Your task to perform on an android device: Open Google Image 0: 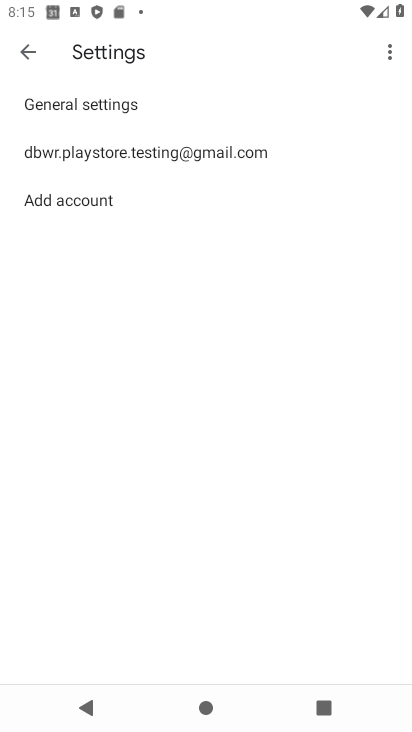
Step 0: press home button
Your task to perform on an android device: Open Google Image 1: 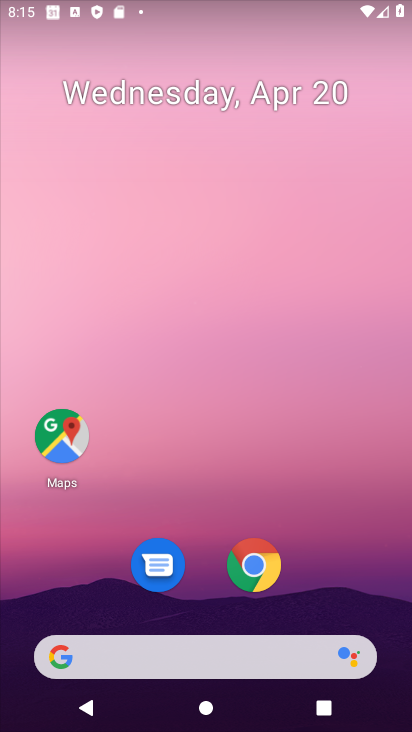
Step 1: drag from (315, 494) to (240, 18)
Your task to perform on an android device: Open Google Image 2: 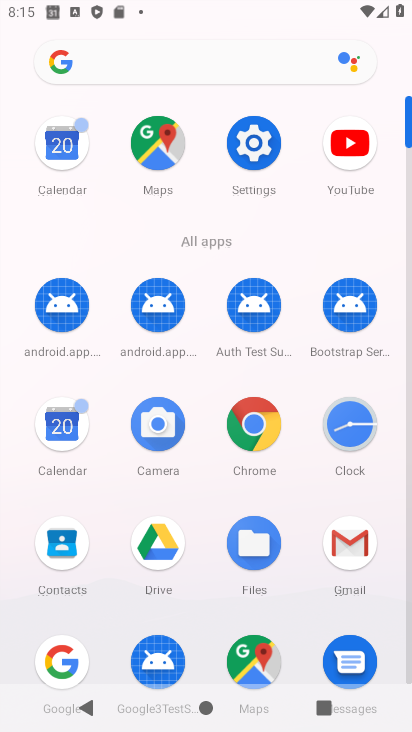
Step 2: click (56, 666)
Your task to perform on an android device: Open Google Image 3: 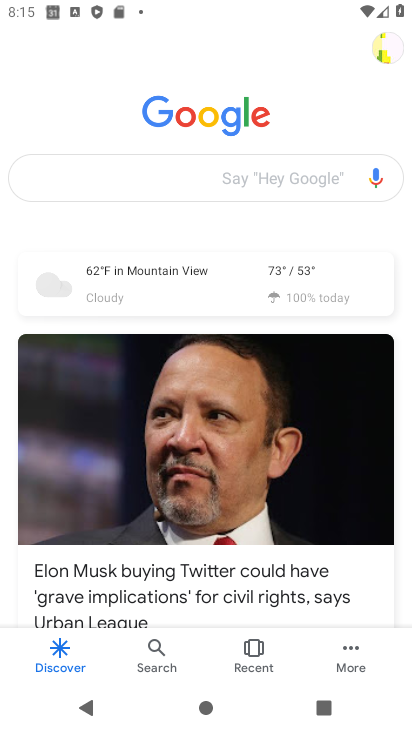
Step 3: task complete